Your task to perform on an android device: check data usage Image 0: 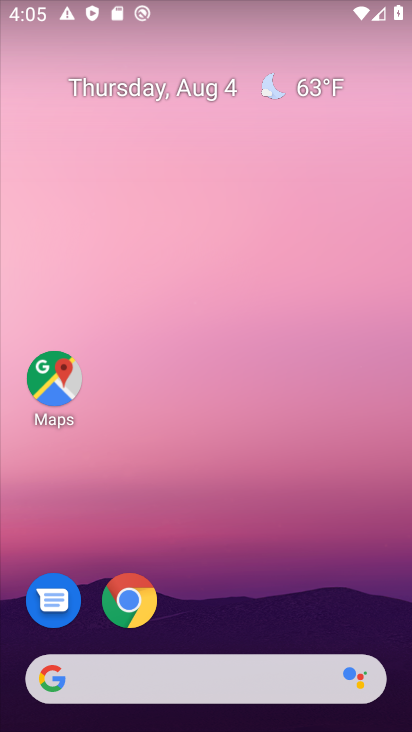
Step 0: drag from (256, 305) to (260, 80)
Your task to perform on an android device: check data usage Image 1: 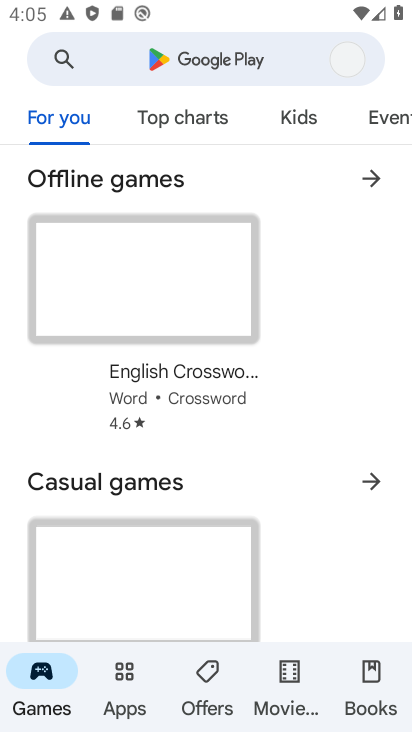
Step 1: press home button
Your task to perform on an android device: check data usage Image 2: 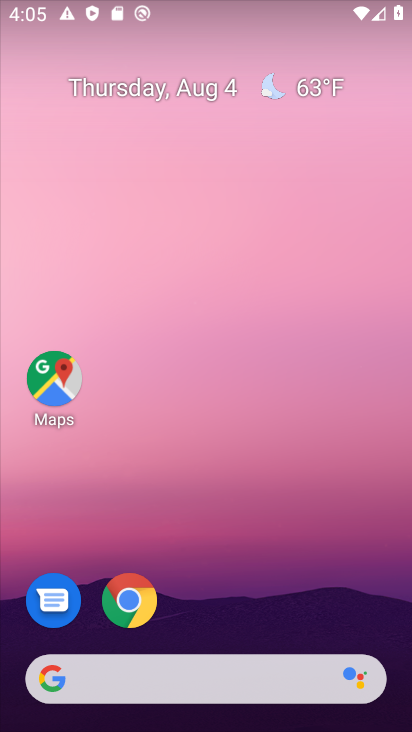
Step 2: drag from (315, 581) to (250, 161)
Your task to perform on an android device: check data usage Image 3: 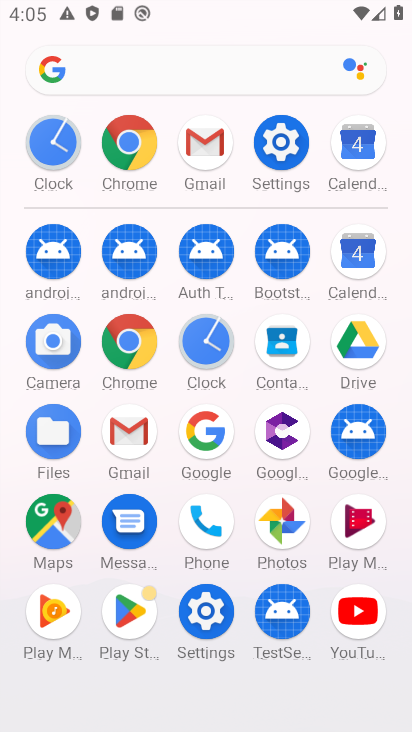
Step 3: click (290, 140)
Your task to perform on an android device: check data usage Image 4: 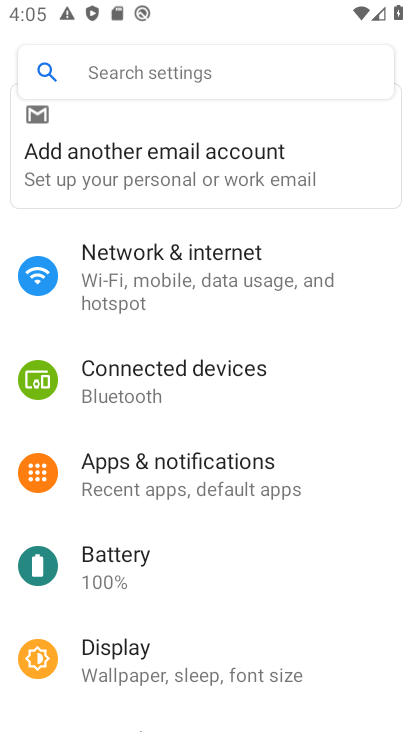
Step 4: click (161, 258)
Your task to perform on an android device: check data usage Image 5: 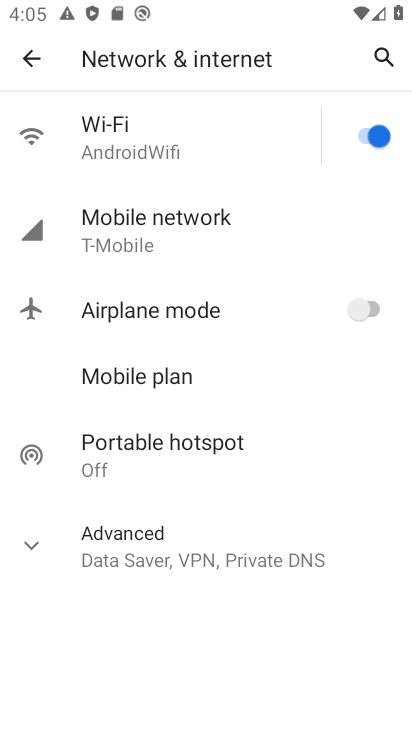
Step 5: click (166, 226)
Your task to perform on an android device: check data usage Image 6: 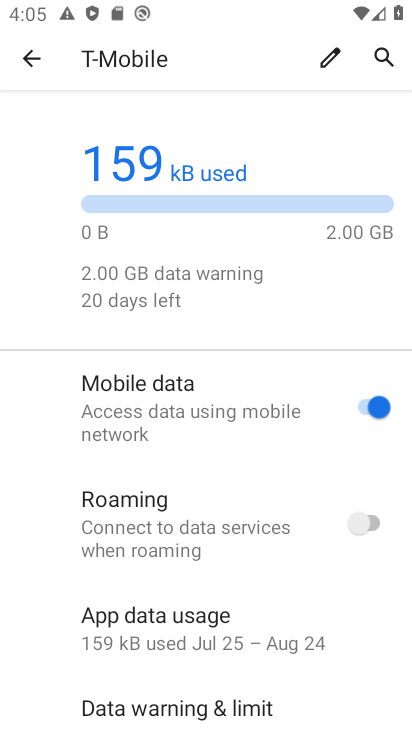
Step 6: task complete